Your task to perform on an android device: make emails show in primary in the gmail app Image 0: 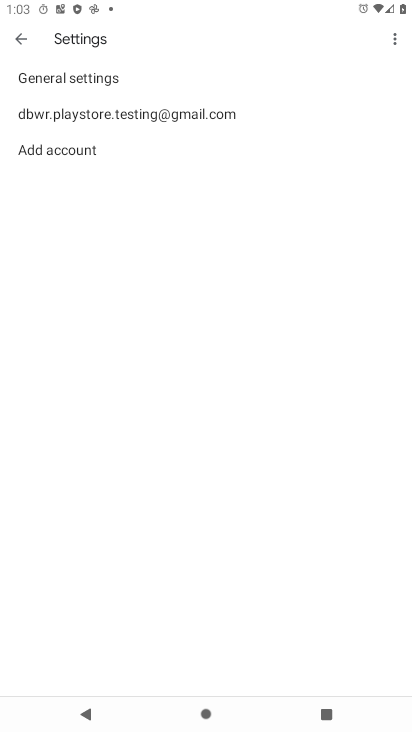
Step 0: click (99, 119)
Your task to perform on an android device: make emails show in primary in the gmail app Image 1: 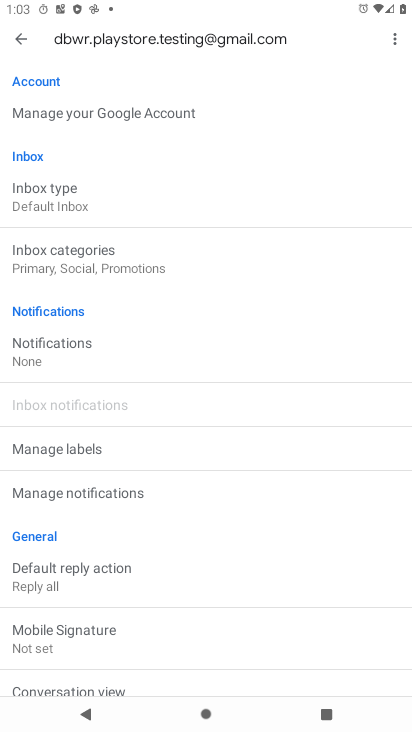
Step 1: click (98, 196)
Your task to perform on an android device: make emails show in primary in the gmail app Image 2: 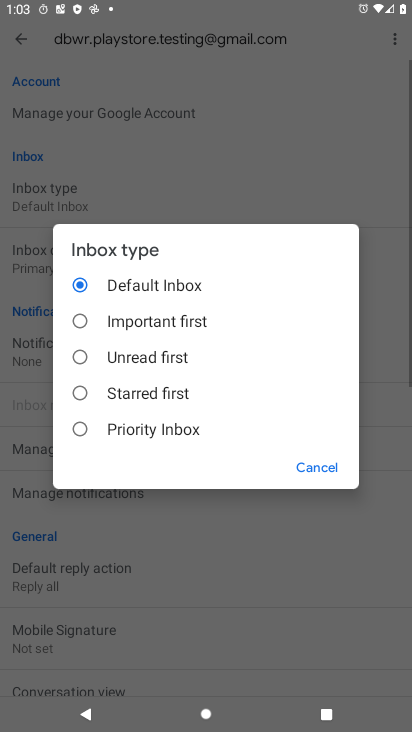
Step 2: click (136, 286)
Your task to perform on an android device: make emails show in primary in the gmail app Image 3: 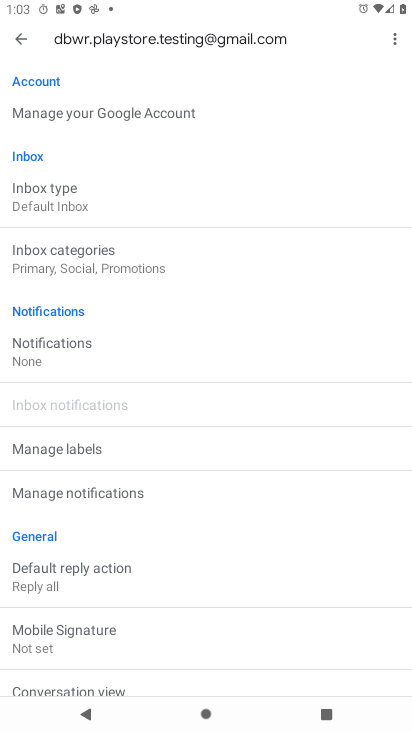
Step 3: click (178, 248)
Your task to perform on an android device: make emails show in primary in the gmail app Image 4: 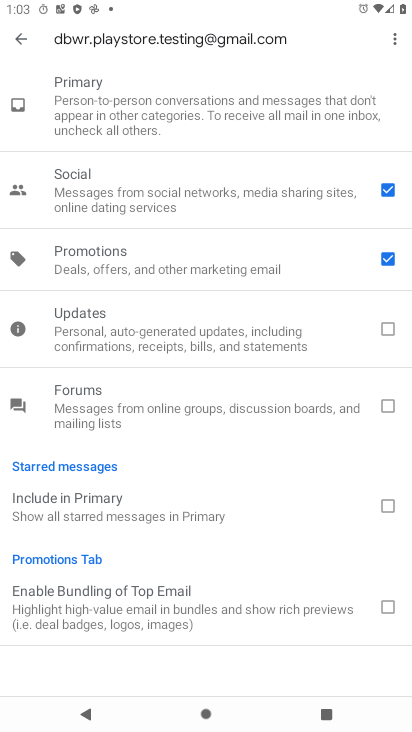
Step 4: click (380, 252)
Your task to perform on an android device: make emails show in primary in the gmail app Image 5: 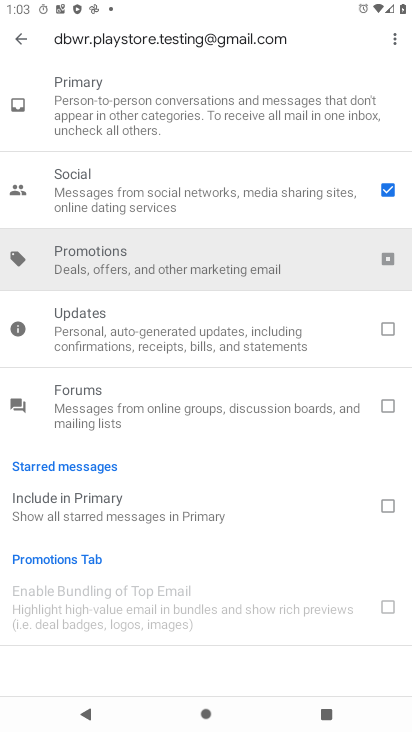
Step 5: click (367, 196)
Your task to perform on an android device: make emails show in primary in the gmail app Image 6: 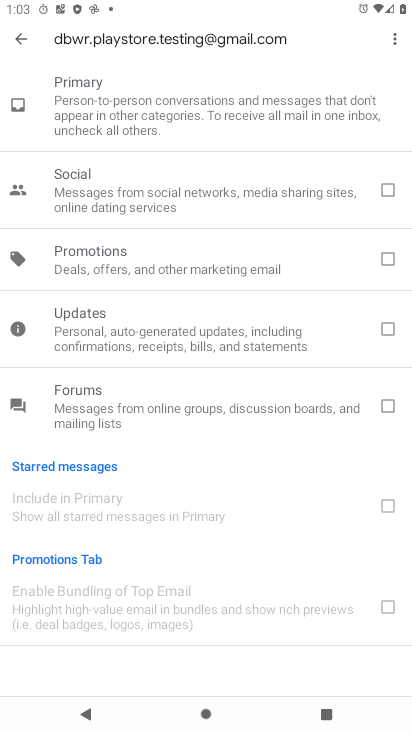
Step 6: task complete